Your task to perform on an android device: see tabs open on other devices in the chrome app Image 0: 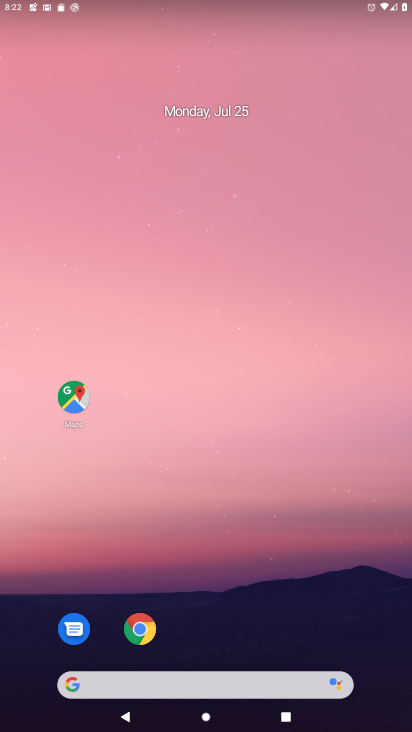
Step 0: click (142, 629)
Your task to perform on an android device: see tabs open on other devices in the chrome app Image 1: 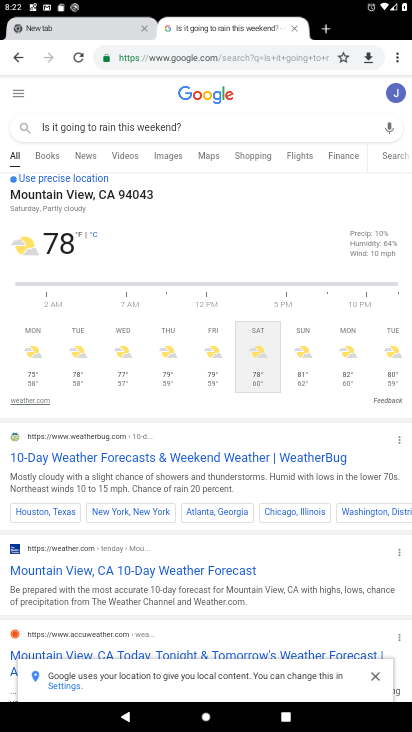
Step 1: click (396, 57)
Your task to perform on an android device: see tabs open on other devices in the chrome app Image 2: 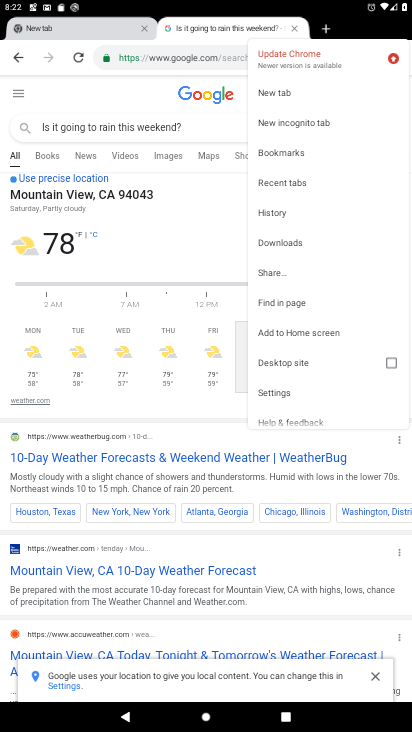
Step 2: click (301, 182)
Your task to perform on an android device: see tabs open on other devices in the chrome app Image 3: 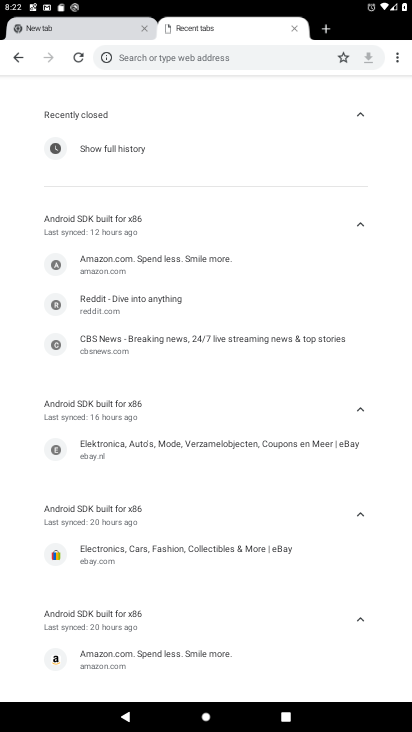
Step 3: task complete